Your task to perform on an android device: Turn on the flashlight Image 0: 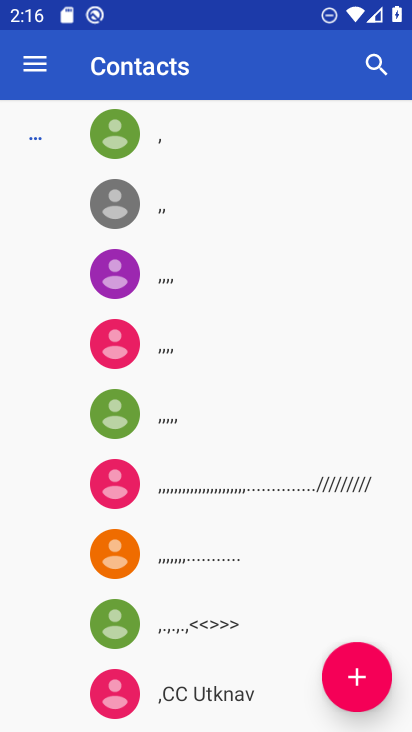
Step 0: press home button
Your task to perform on an android device: Turn on the flashlight Image 1: 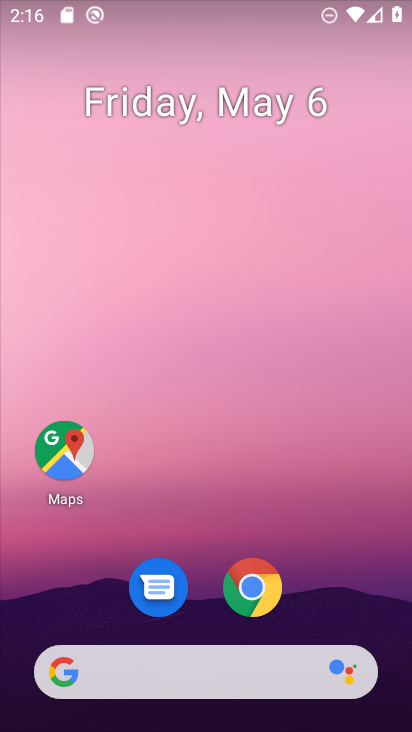
Step 1: drag from (230, 475) to (226, 17)
Your task to perform on an android device: Turn on the flashlight Image 2: 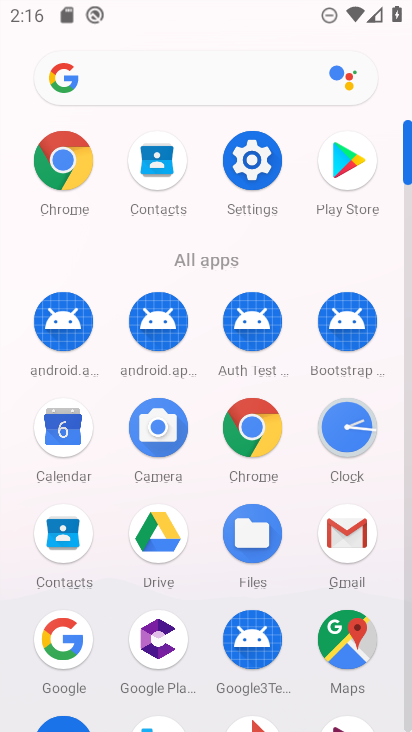
Step 2: click (243, 160)
Your task to perform on an android device: Turn on the flashlight Image 3: 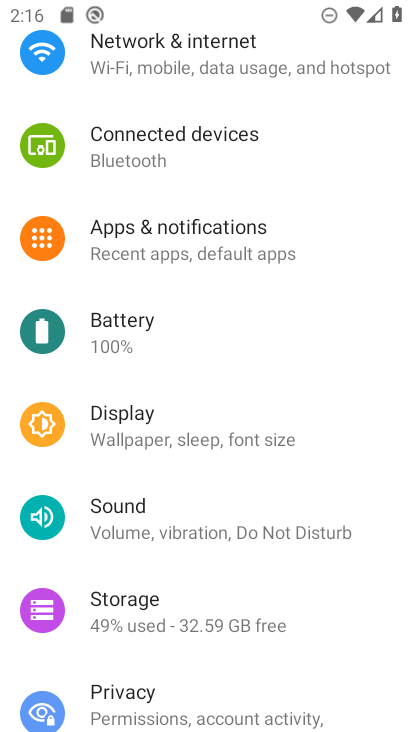
Step 3: drag from (241, 152) to (211, 691)
Your task to perform on an android device: Turn on the flashlight Image 4: 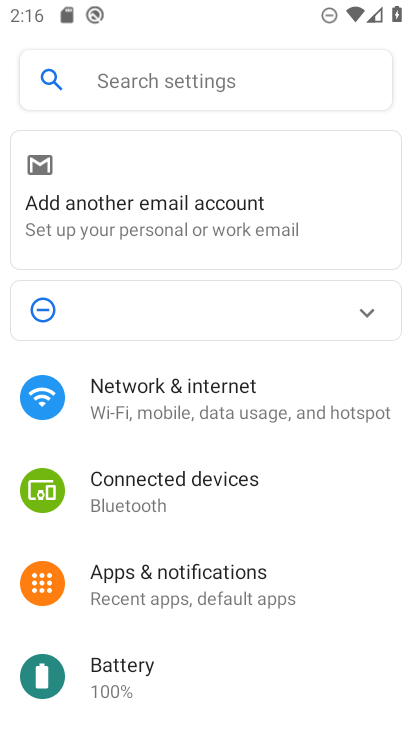
Step 4: click (245, 70)
Your task to perform on an android device: Turn on the flashlight Image 5: 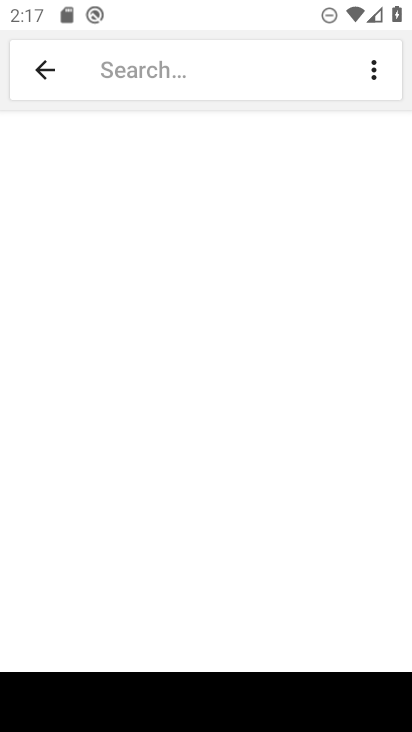
Step 5: type "flashlight"
Your task to perform on an android device: Turn on the flashlight Image 6: 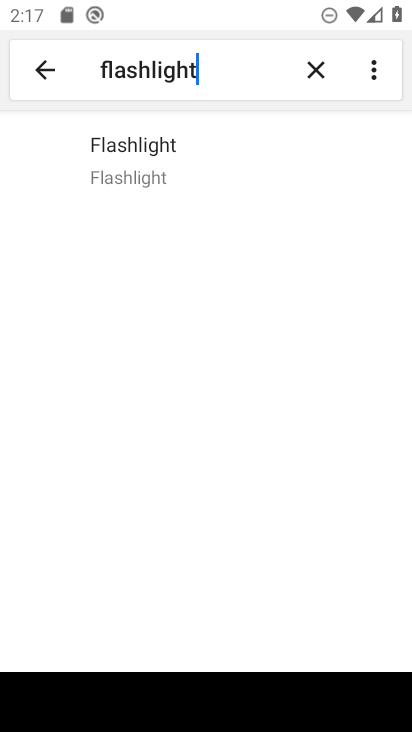
Step 6: click (144, 160)
Your task to perform on an android device: Turn on the flashlight Image 7: 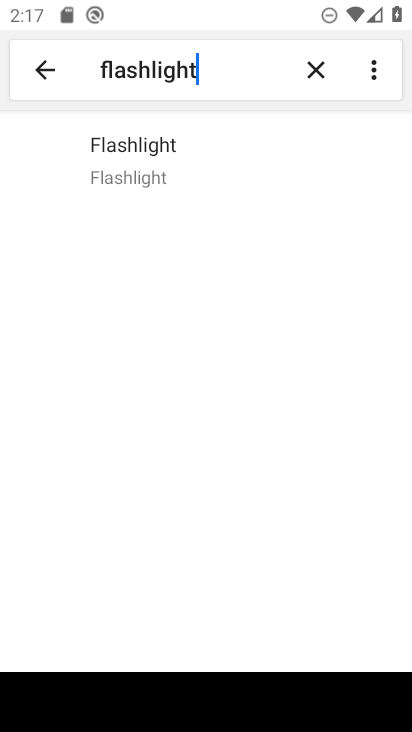
Step 7: task complete